Your task to perform on an android device: Search for vegetarian restaurants on Maps Image 0: 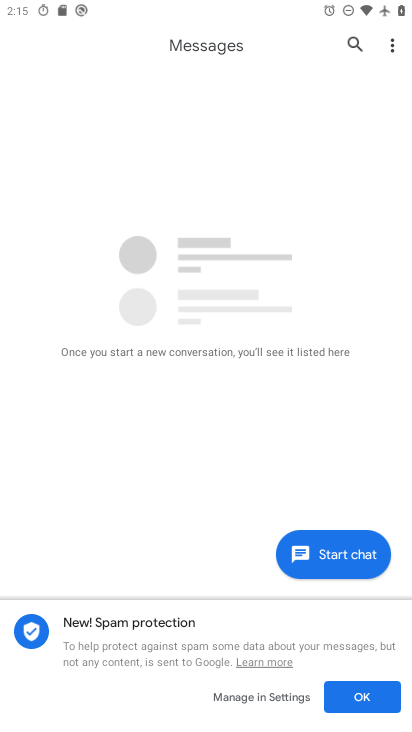
Step 0: press home button
Your task to perform on an android device: Search for vegetarian restaurants on Maps Image 1: 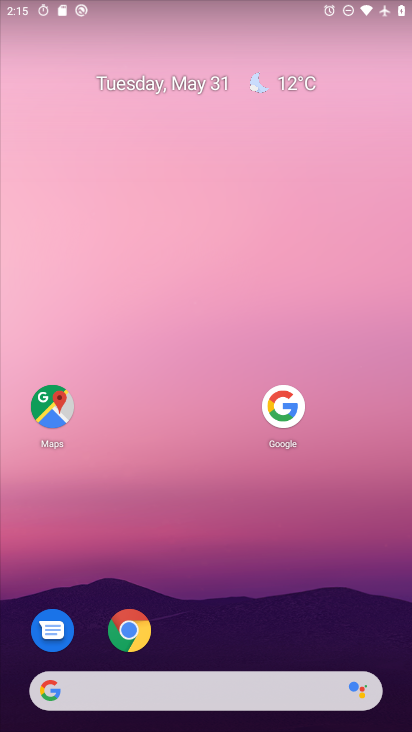
Step 1: click (48, 415)
Your task to perform on an android device: Search for vegetarian restaurants on Maps Image 2: 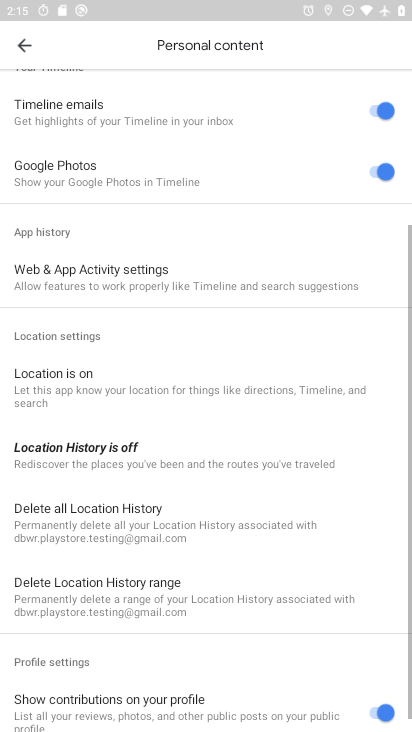
Step 2: click (31, 46)
Your task to perform on an android device: Search for vegetarian restaurants on Maps Image 3: 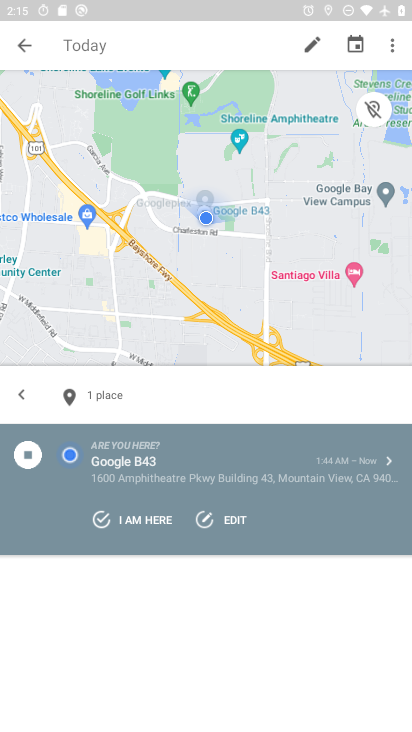
Step 3: click (31, 46)
Your task to perform on an android device: Search for vegetarian restaurants on Maps Image 4: 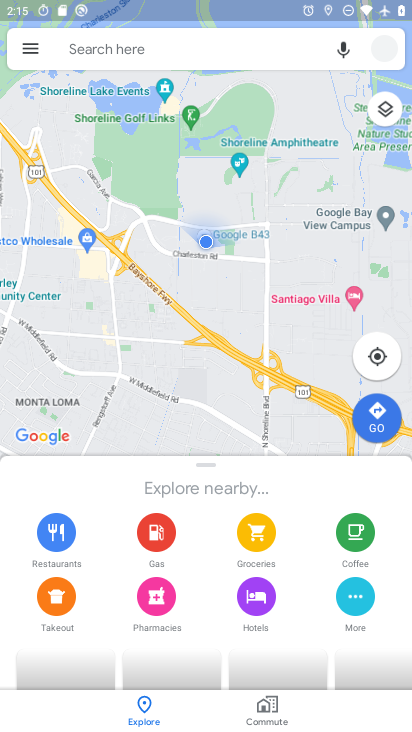
Step 4: click (193, 45)
Your task to perform on an android device: Search for vegetarian restaurants on Maps Image 5: 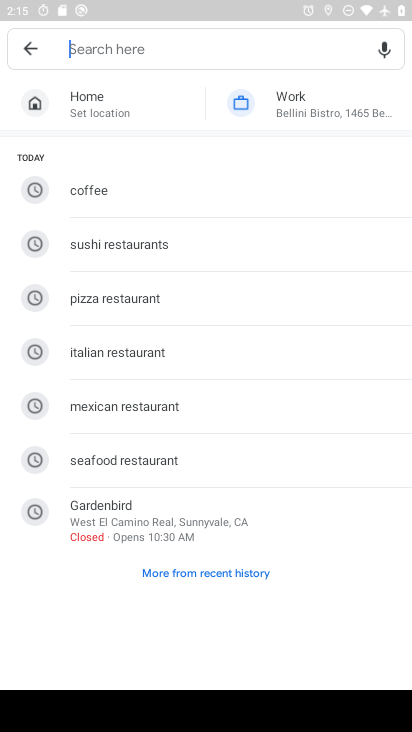
Step 5: type "vegetarian"
Your task to perform on an android device: Search for vegetarian restaurants on Maps Image 6: 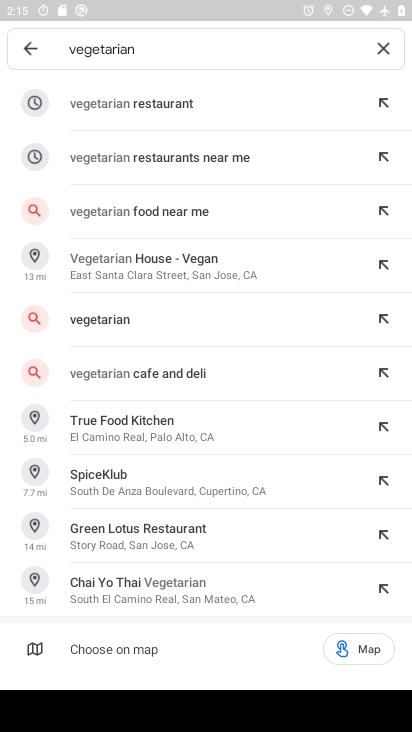
Step 6: click (140, 101)
Your task to perform on an android device: Search for vegetarian restaurants on Maps Image 7: 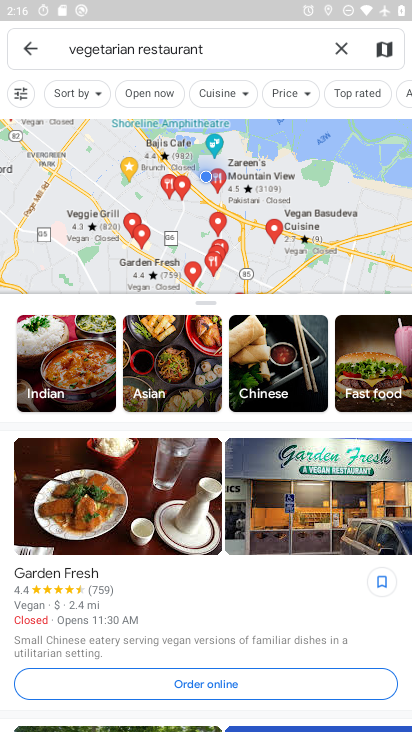
Step 7: task complete